Your task to perform on an android device: Open the stopwatch Image 0: 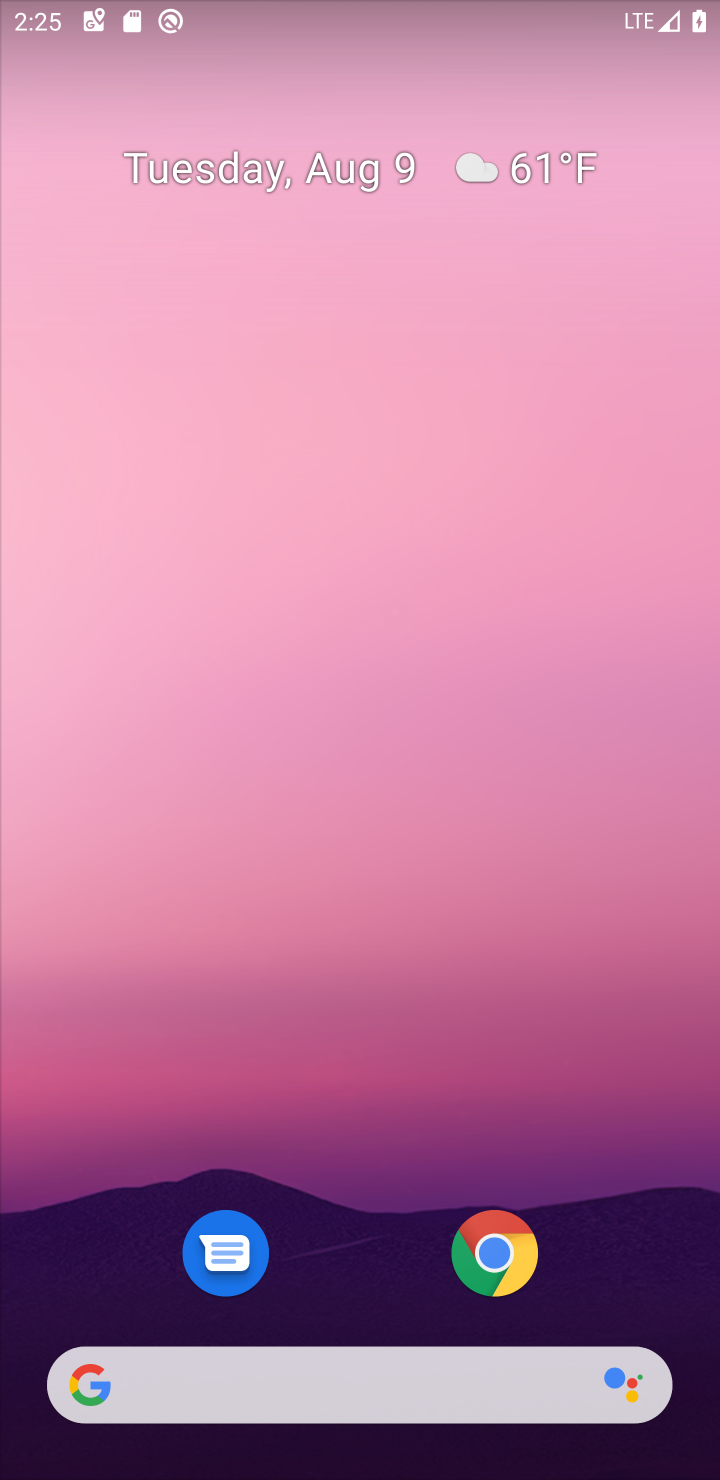
Step 0: drag from (647, 1206) to (299, 65)
Your task to perform on an android device: Open the stopwatch Image 1: 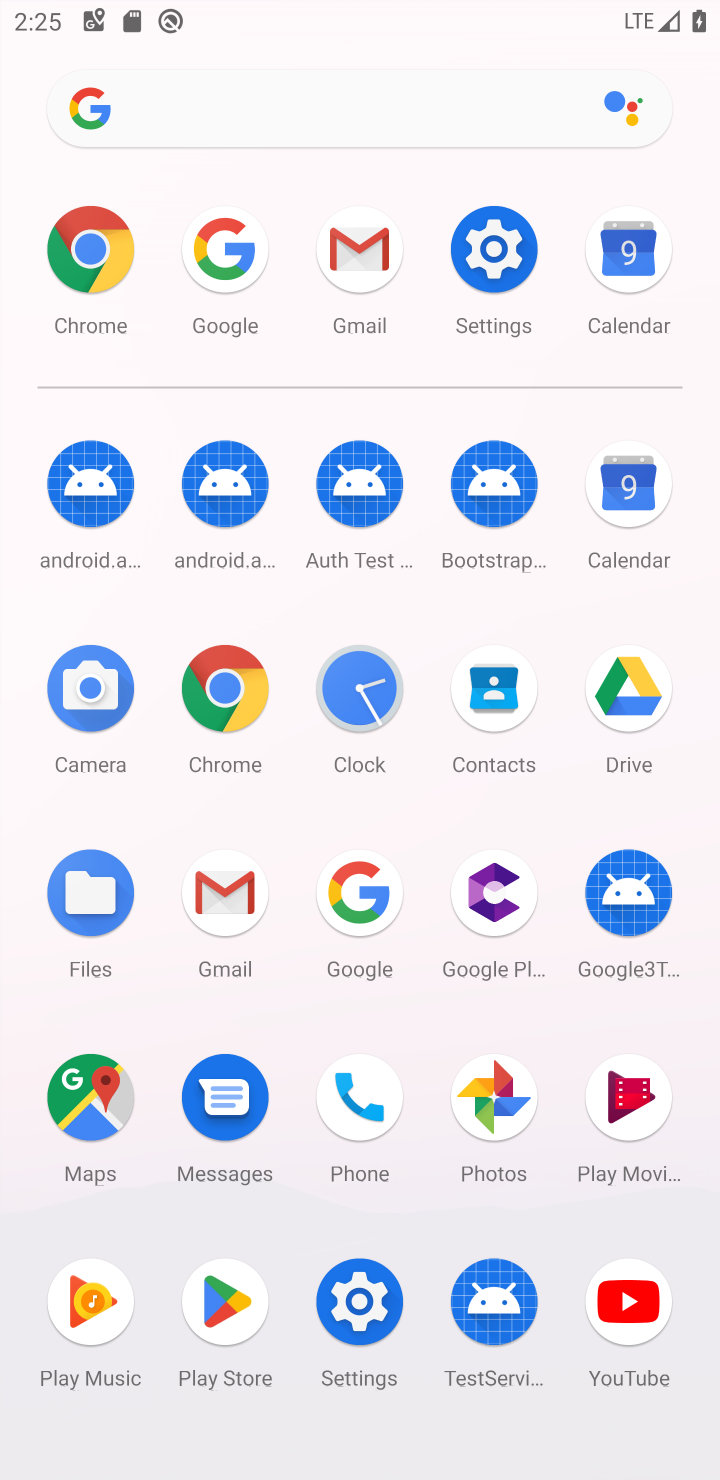
Step 1: click (374, 703)
Your task to perform on an android device: Open the stopwatch Image 2: 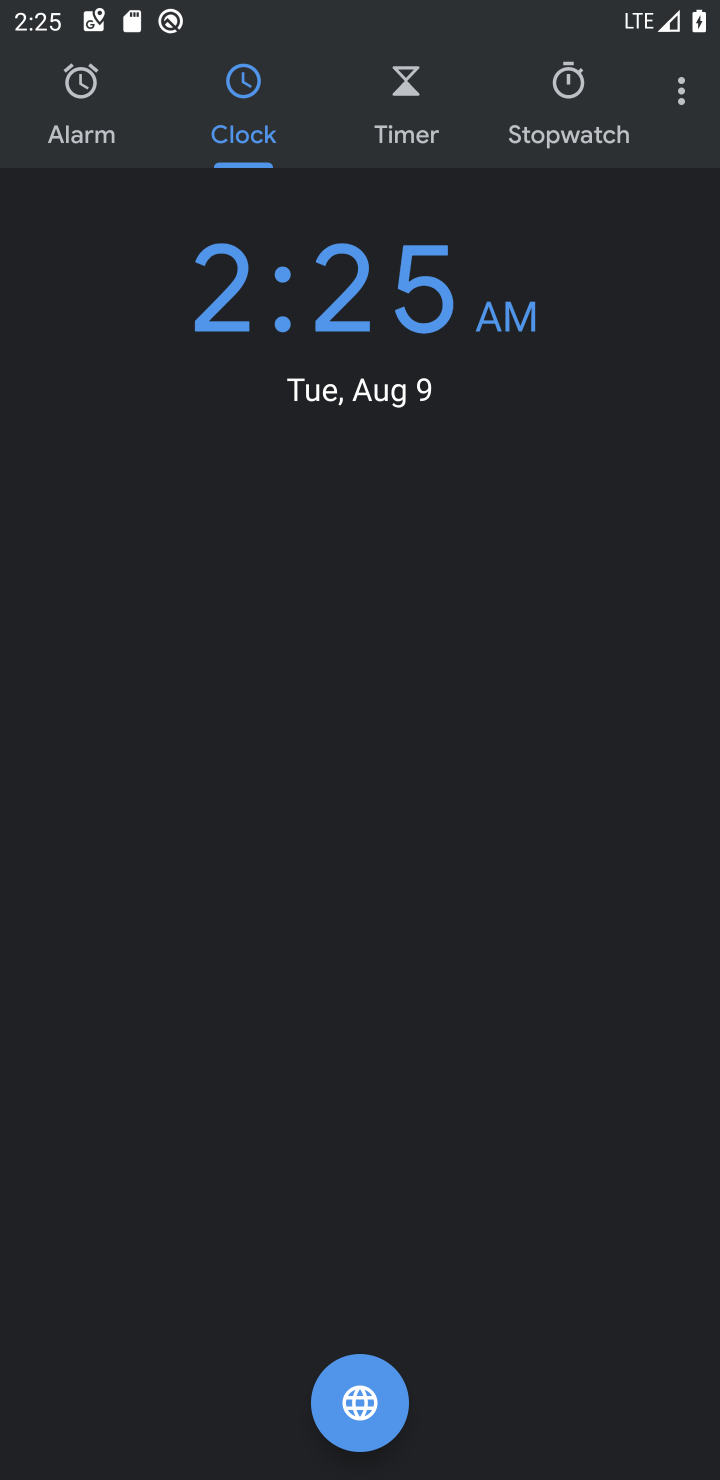
Step 2: click (565, 97)
Your task to perform on an android device: Open the stopwatch Image 3: 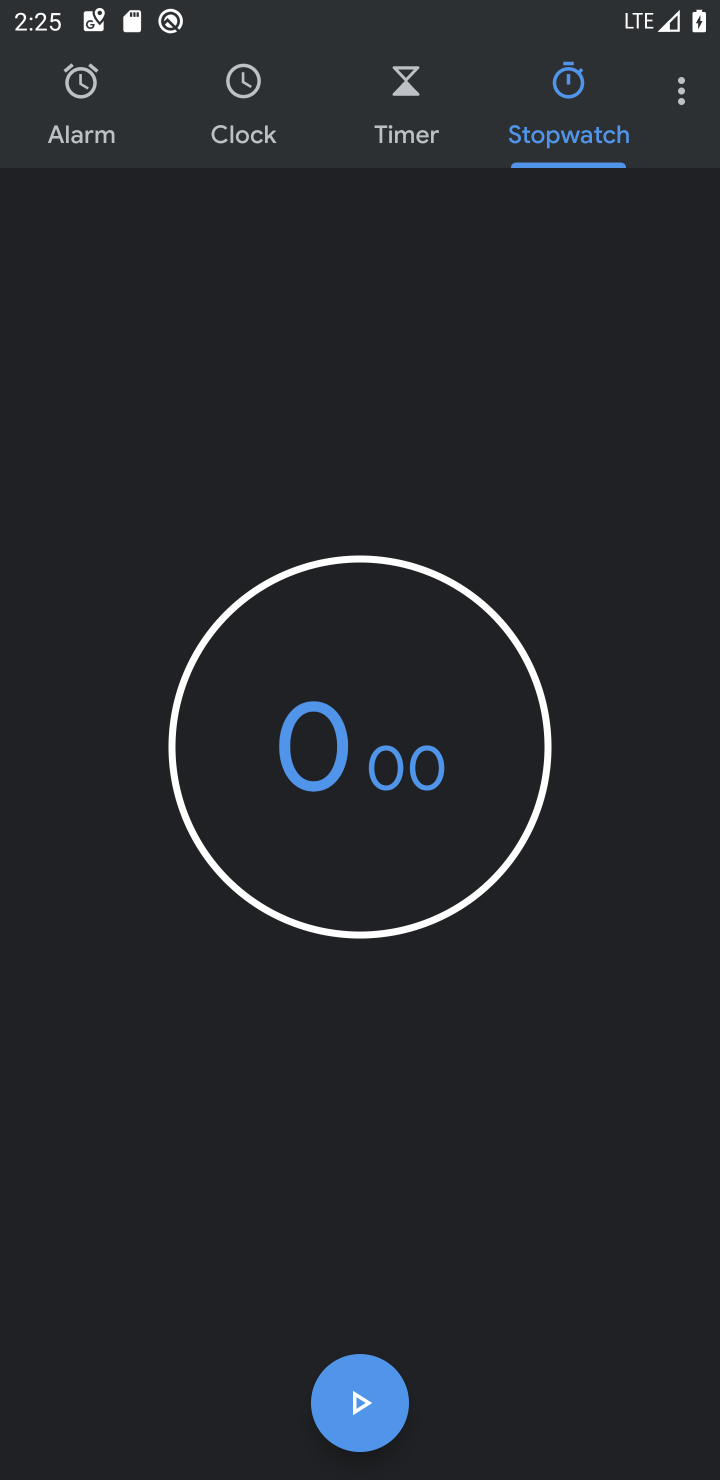
Step 3: task complete